Your task to perform on an android device: clear all cookies in the chrome app Image 0: 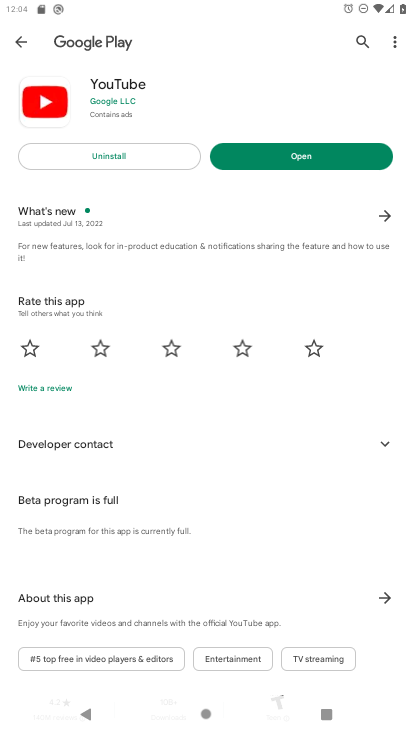
Step 0: press home button
Your task to perform on an android device: clear all cookies in the chrome app Image 1: 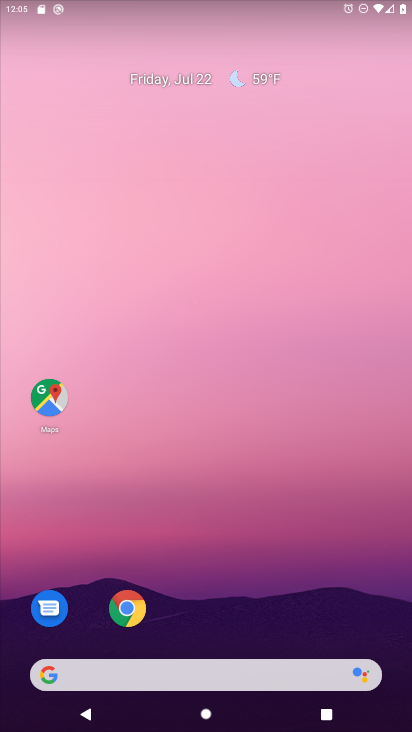
Step 1: drag from (248, 593) to (183, 26)
Your task to perform on an android device: clear all cookies in the chrome app Image 2: 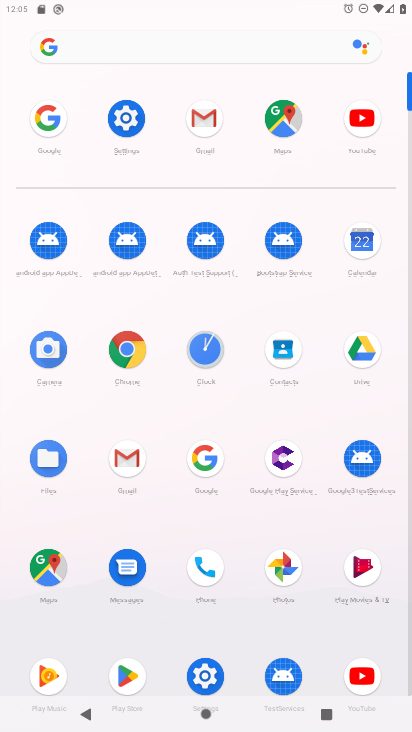
Step 2: click (114, 356)
Your task to perform on an android device: clear all cookies in the chrome app Image 3: 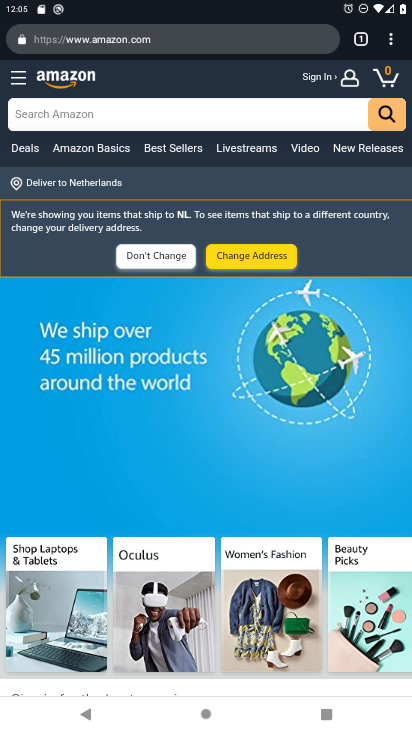
Step 3: click (390, 31)
Your task to perform on an android device: clear all cookies in the chrome app Image 4: 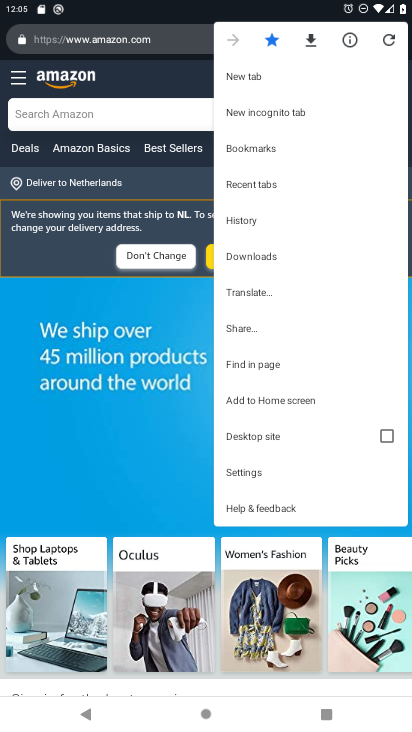
Step 4: click (238, 221)
Your task to perform on an android device: clear all cookies in the chrome app Image 5: 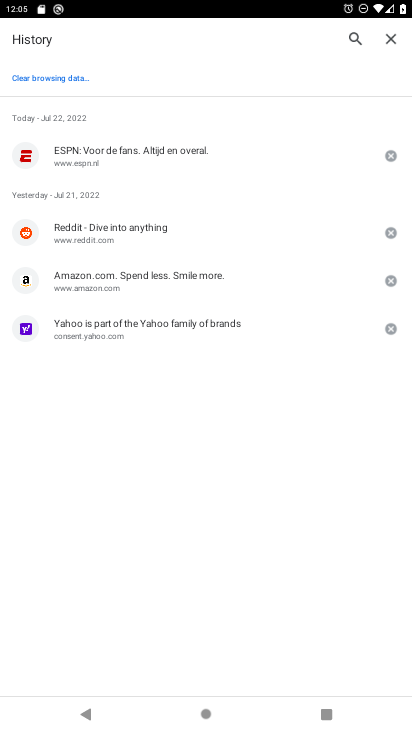
Step 5: click (76, 80)
Your task to perform on an android device: clear all cookies in the chrome app Image 6: 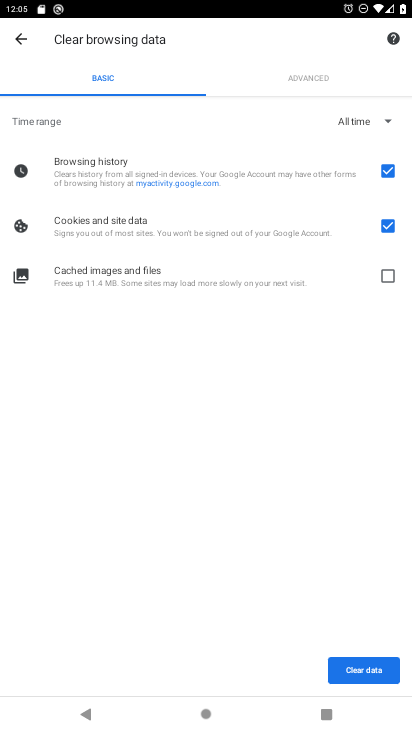
Step 6: click (374, 664)
Your task to perform on an android device: clear all cookies in the chrome app Image 7: 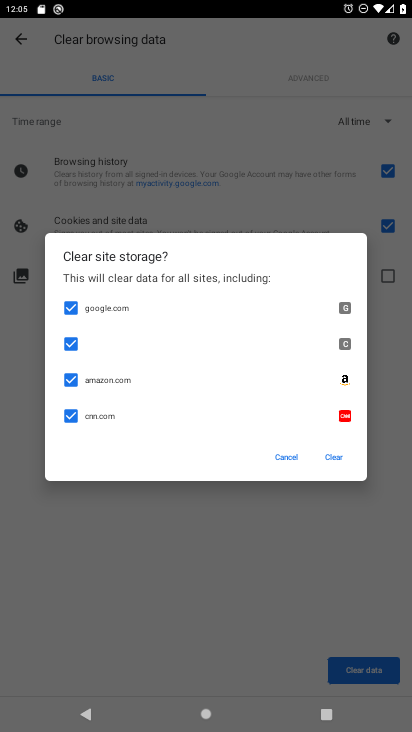
Step 7: click (329, 462)
Your task to perform on an android device: clear all cookies in the chrome app Image 8: 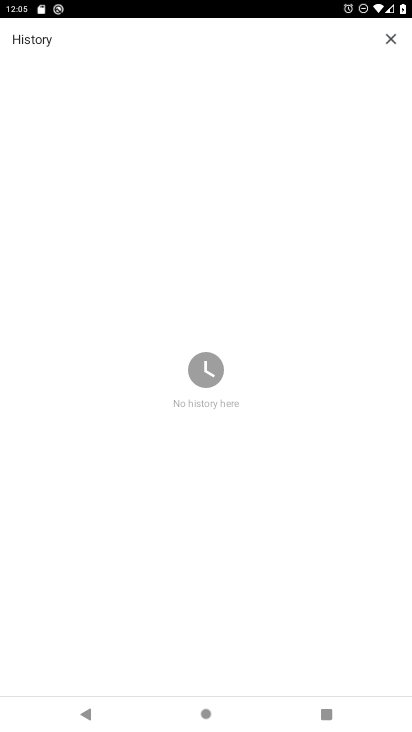
Step 8: task complete